Your task to perform on an android device: change timer sound Image 0: 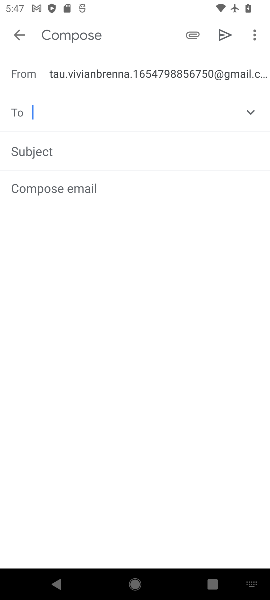
Step 0: press home button
Your task to perform on an android device: change timer sound Image 1: 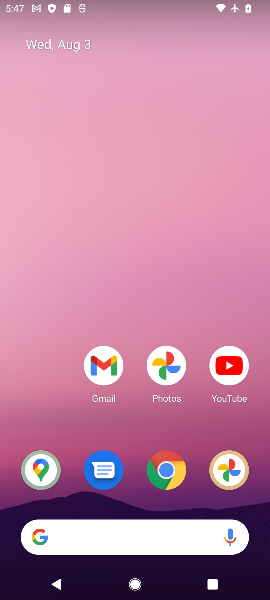
Step 1: drag from (109, 427) to (187, 178)
Your task to perform on an android device: change timer sound Image 2: 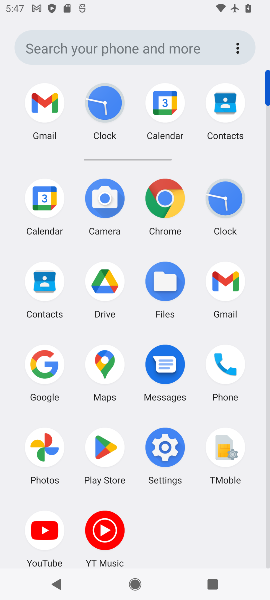
Step 2: click (230, 213)
Your task to perform on an android device: change timer sound Image 3: 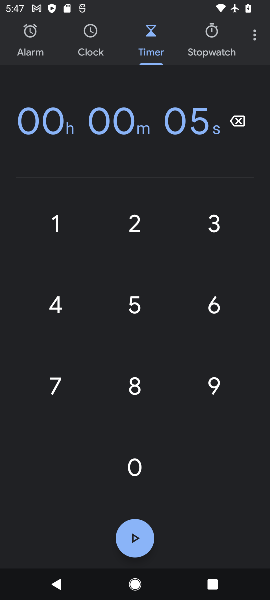
Step 3: click (251, 36)
Your task to perform on an android device: change timer sound Image 4: 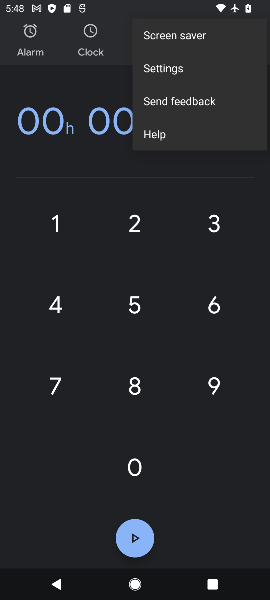
Step 4: click (185, 76)
Your task to perform on an android device: change timer sound Image 5: 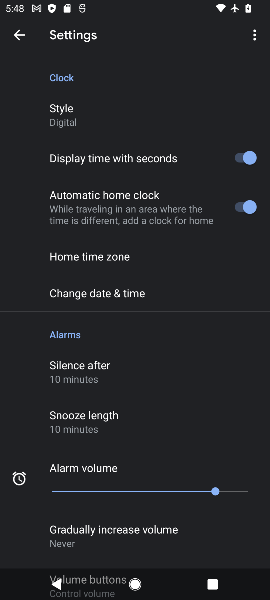
Step 5: drag from (212, 444) to (265, 188)
Your task to perform on an android device: change timer sound Image 6: 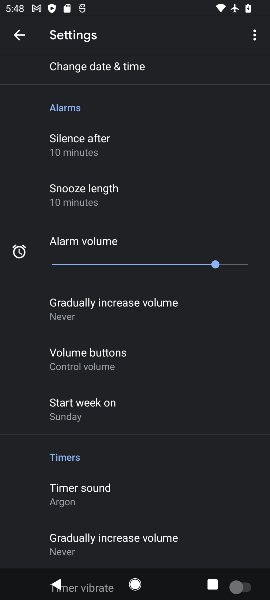
Step 6: click (105, 488)
Your task to perform on an android device: change timer sound Image 7: 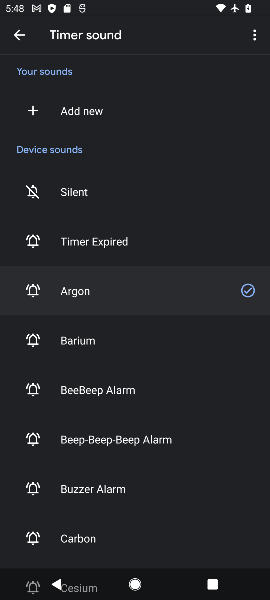
Step 7: click (97, 241)
Your task to perform on an android device: change timer sound Image 8: 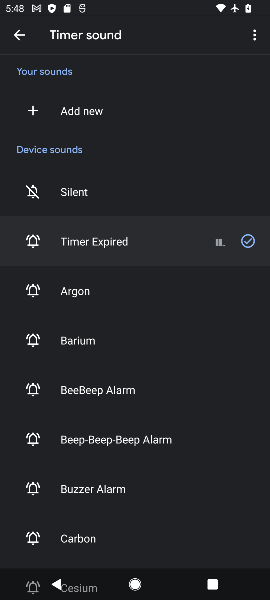
Step 8: task complete